Your task to perform on an android device: toggle data saver in the chrome app Image 0: 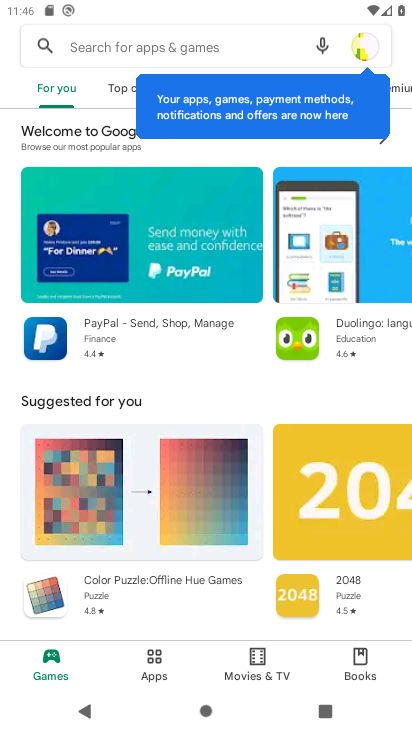
Step 0: press home button
Your task to perform on an android device: toggle data saver in the chrome app Image 1: 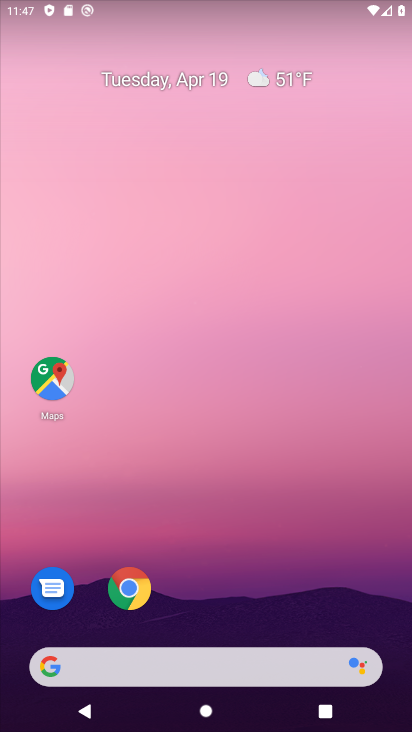
Step 1: click (131, 586)
Your task to perform on an android device: toggle data saver in the chrome app Image 2: 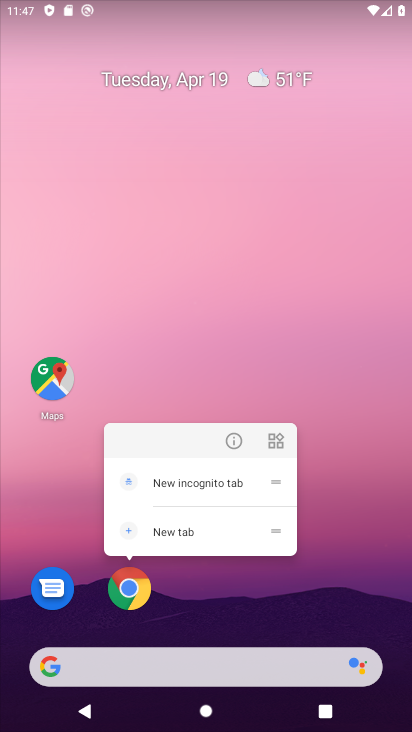
Step 2: click (135, 593)
Your task to perform on an android device: toggle data saver in the chrome app Image 3: 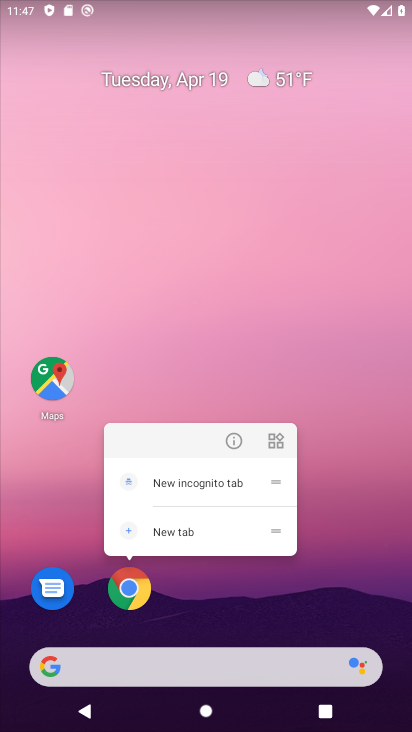
Step 3: click (130, 591)
Your task to perform on an android device: toggle data saver in the chrome app Image 4: 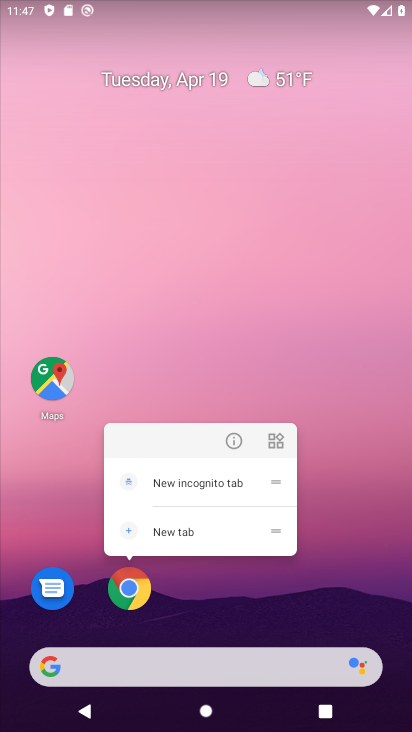
Step 4: click (129, 586)
Your task to perform on an android device: toggle data saver in the chrome app Image 5: 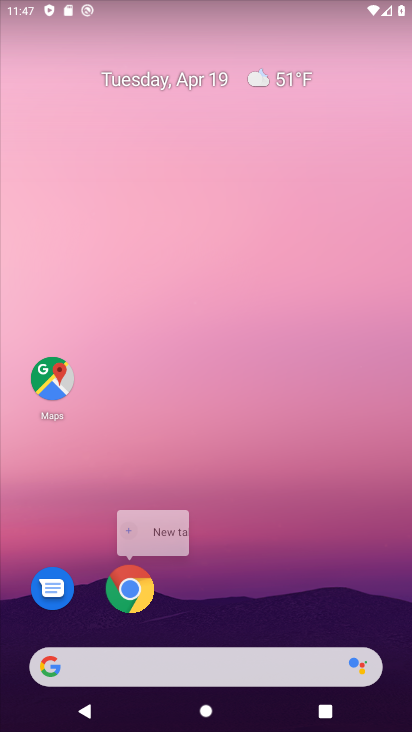
Step 5: click (339, 598)
Your task to perform on an android device: toggle data saver in the chrome app Image 6: 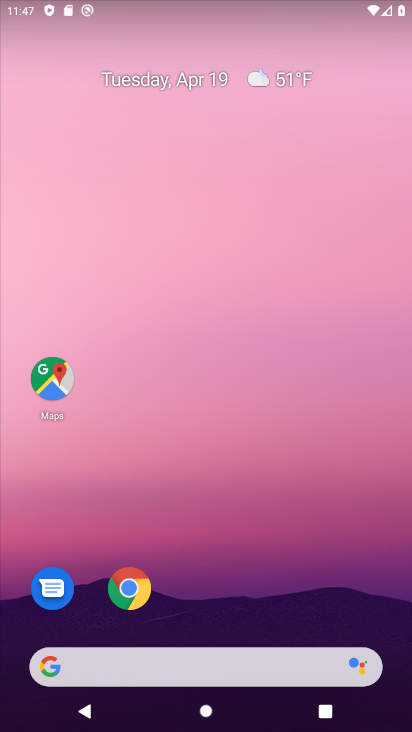
Step 6: click (297, 369)
Your task to perform on an android device: toggle data saver in the chrome app Image 7: 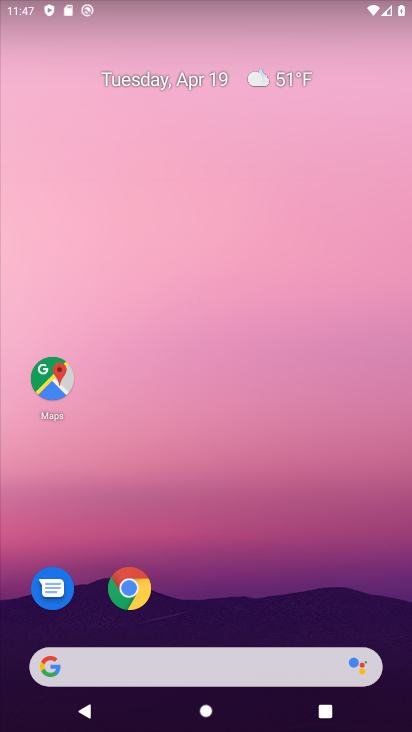
Step 7: click (130, 588)
Your task to perform on an android device: toggle data saver in the chrome app Image 8: 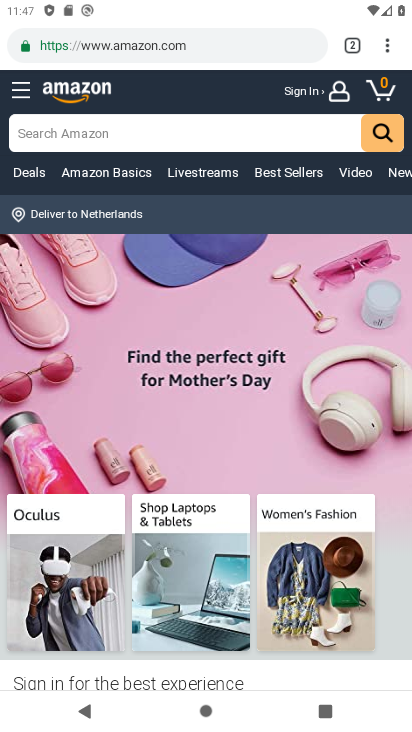
Step 8: click (383, 45)
Your task to perform on an android device: toggle data saver in the chrome app Image 9: 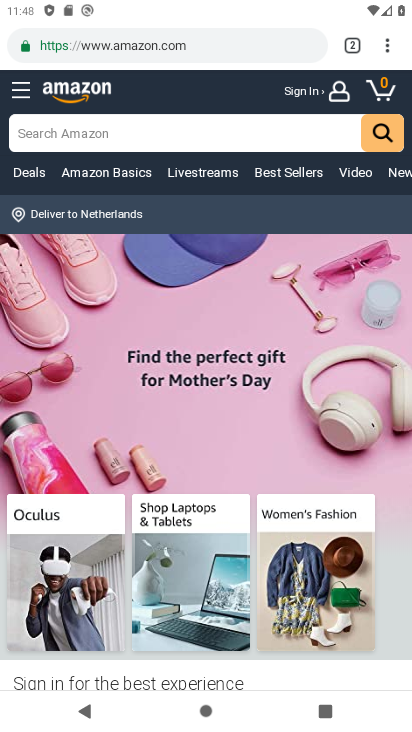
Step 9: click (385, 43)
Your task to perform on an android device: toggle data saver in the chrome app Image 10: 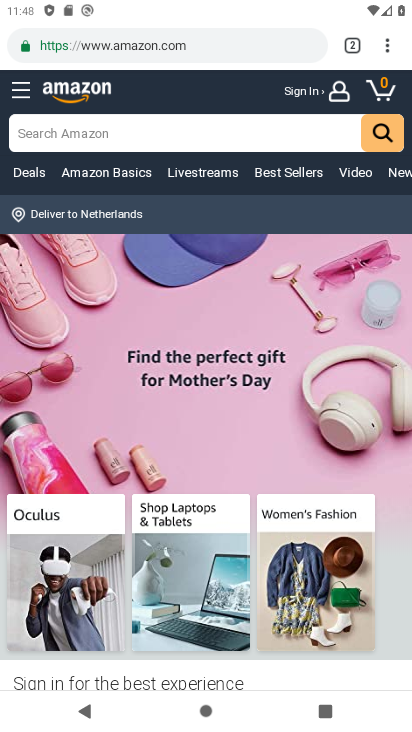
Step 10: click (390, 44)
Your task to perform on an android device: toggle data saver in the chrome app Image 11: 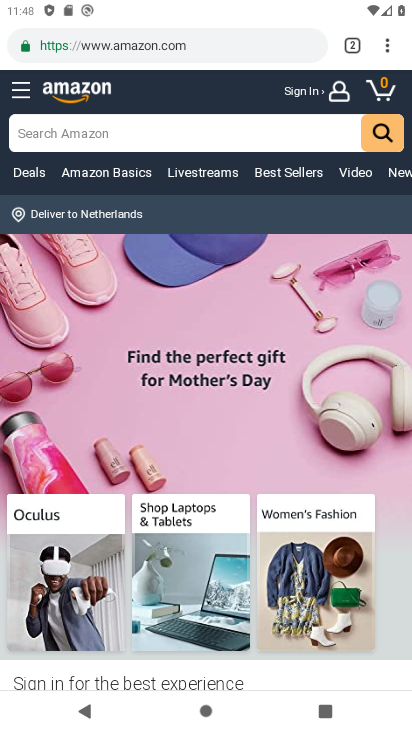
Step 11: click (381, 42)
Your task to perform on an android device: toggle data saver in the chrome app Image 12: 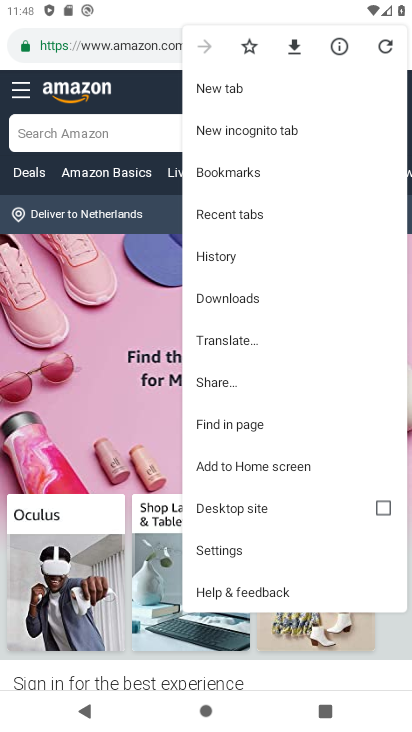
Step 12: click (250, 543)
Your task to perform on an android device: toggle data saver in the chrome app Image 13: 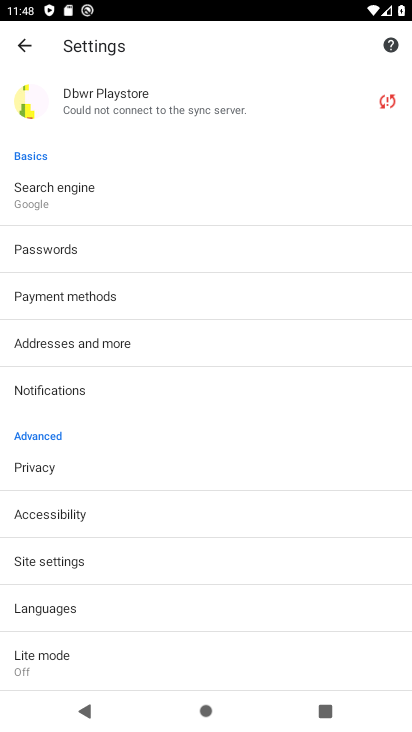
Step 13: click (79, 661)
Your task to perform on an android device: toggle data saver in the chrome app Image 14: 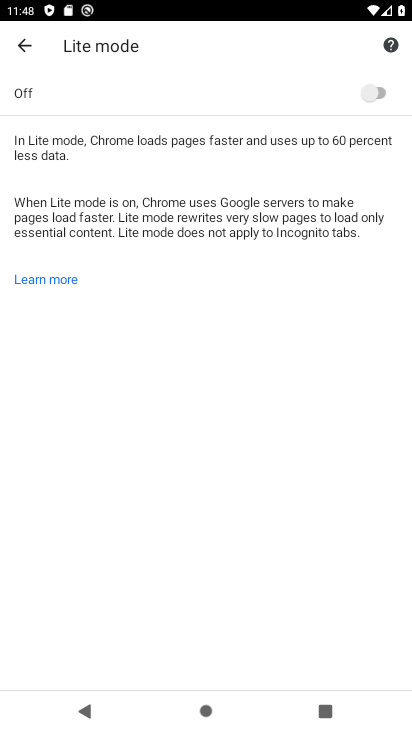
Step 14: click (370, 93)
Your task to perform on an android device: toggle data saver in the chrome app Image 15: 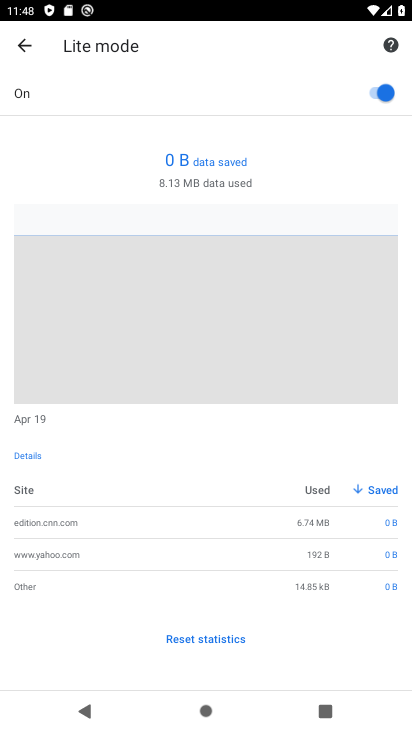
Step 15: task complete